Your task to perform on an android device: change notification settings in the gmail app Image 0: 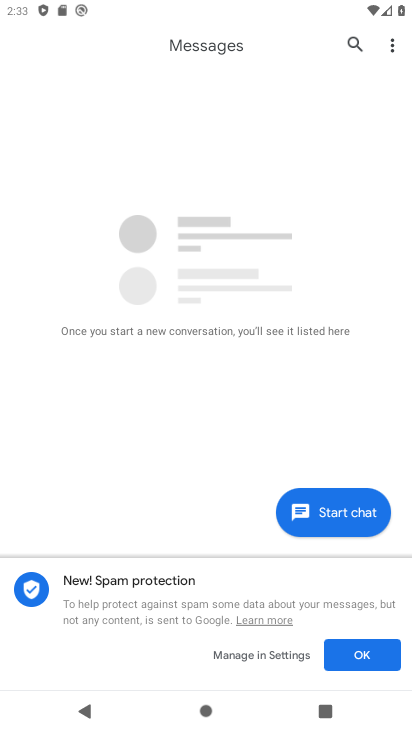
Step 0: press home button
Your task to perform on an android device: change notification settings in the gmail app Image 1: 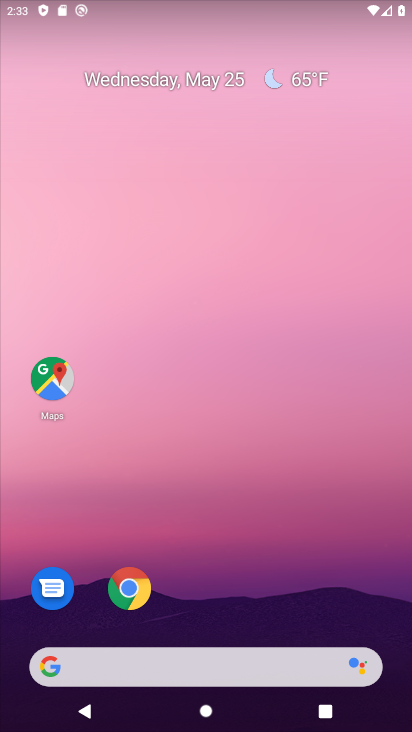
Step 1: drag from (170, 561) to (226, 136)
Your task to perform on an android device: change notification settings in the gmail app Image 2: 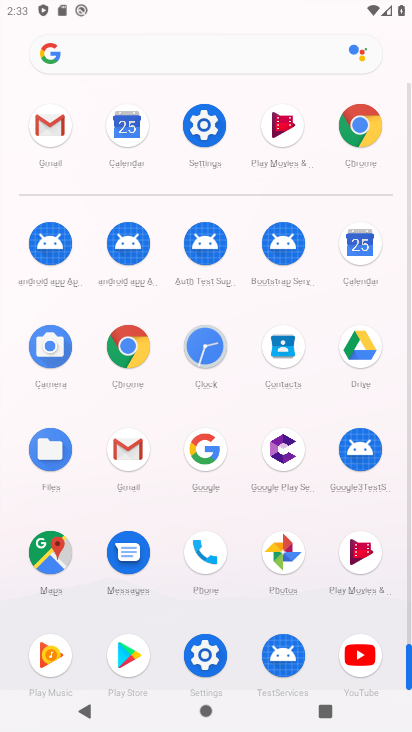
Step 2: click (129, 446)
Your task to perform on an android device: change notification settings in the gmail app Image 3: 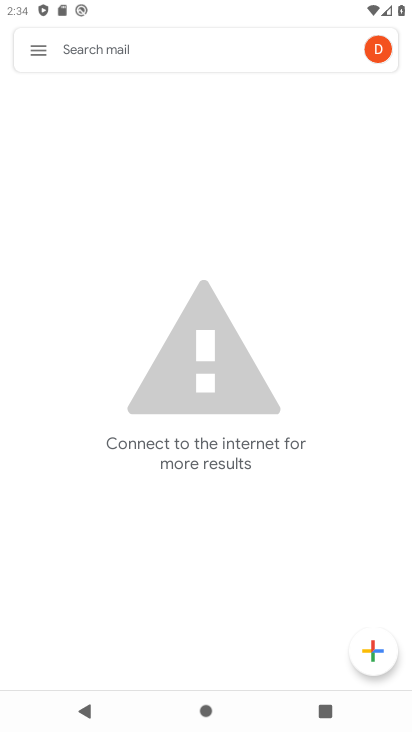
Step 3: click (45, 48)
Your task to perform on an android device: change notification settings in the gmail app Image 4: 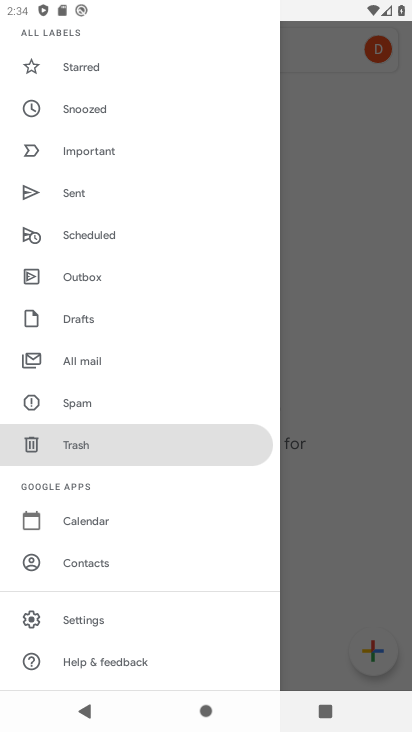
Step 4: click (103, 615)
Your task to perform on an android device: change notification settings in the gmail app Image 5: 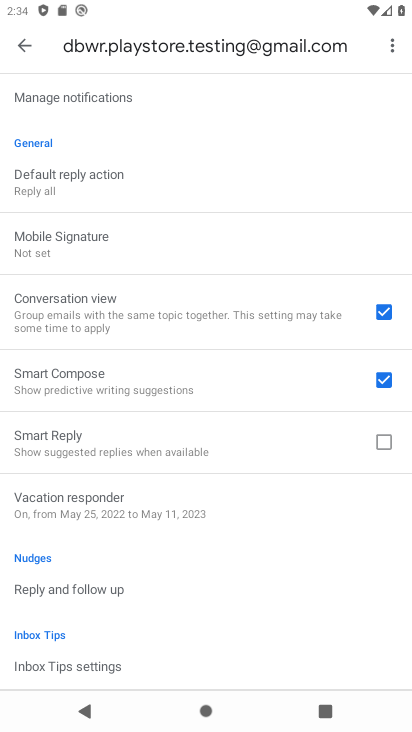
Step 5: drag from (113, 545) to (172, 326)
Your task to perform on an android device: change notification settings in the gmail app Image 6: 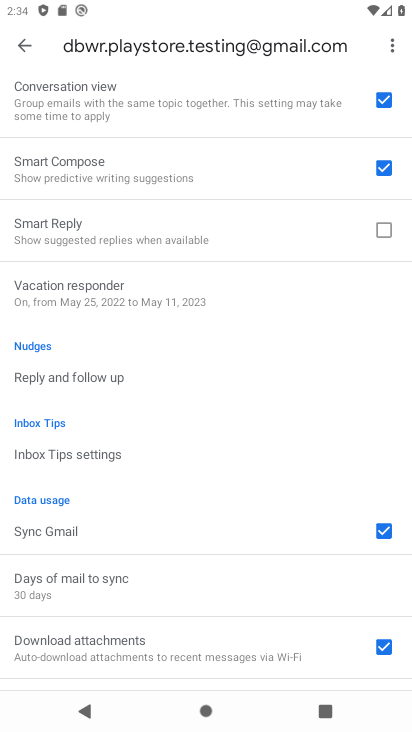
Step 6: drag from (144, 172) to (163, 433)
Your task to perform on an android device: change notification settings in the gmail app Image 7: 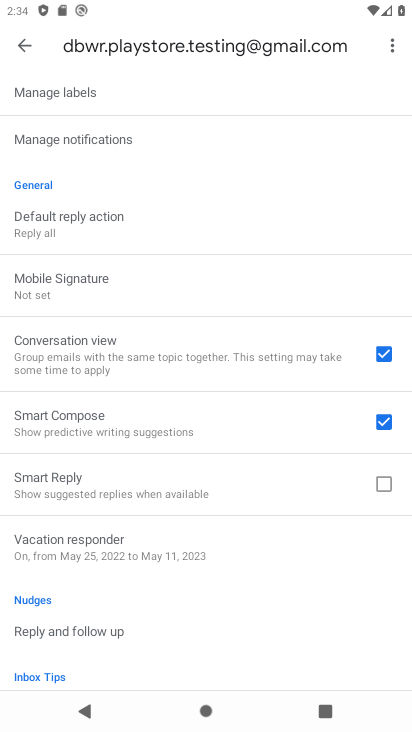
Step 7: click (110, 132)
Your task to perform on an android device: change notification settings in the gmail app Image 8: 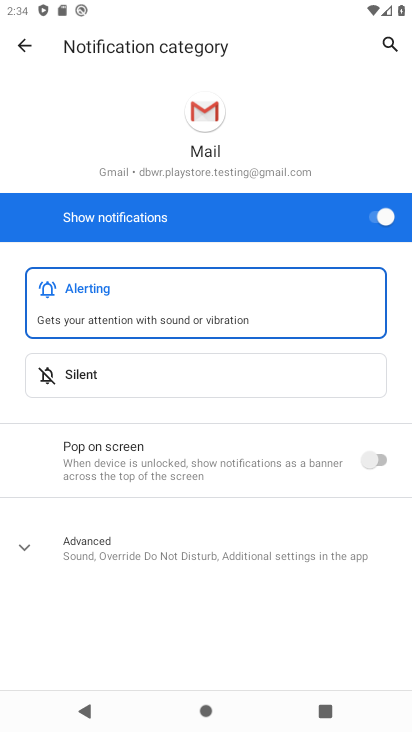
Step 8: click (380, 213)
Your task to perform on an android device: change notification settings in the gmail app Image 9: 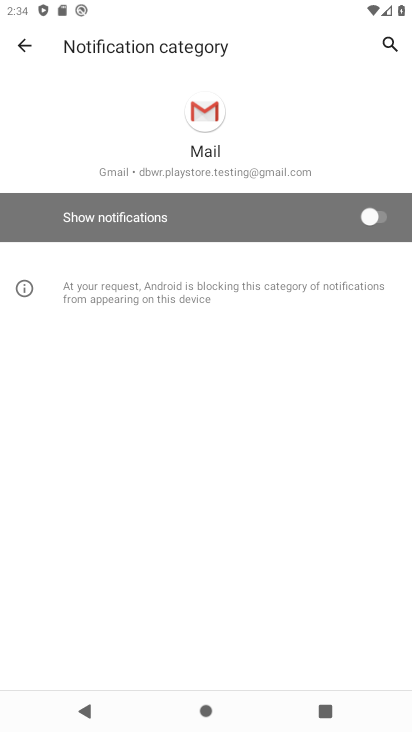
Step 9: task complete